Your task to perform on an android device: Open eBay Image 0: 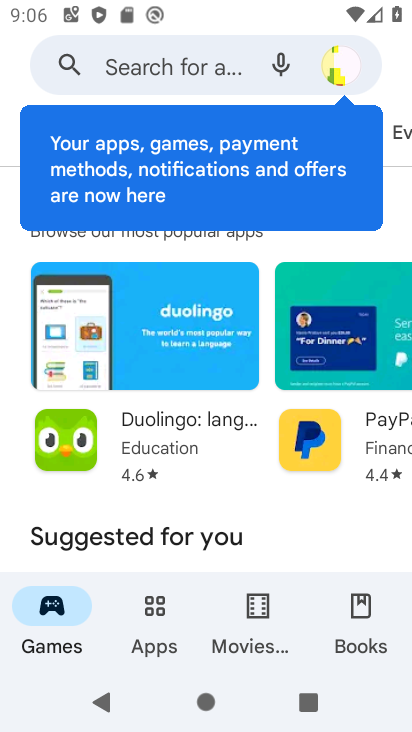
Step 0: press home button
Your task to perform on an android device: Open eBay Image 1: 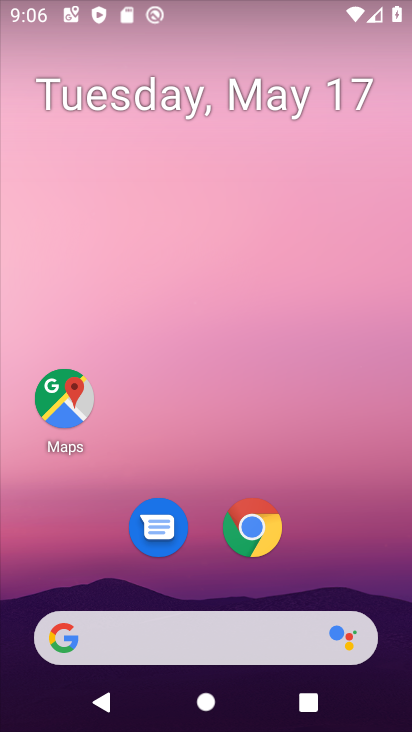
Step 1: click (267, 537)
Your task to perform on an android device: Open eBay Image 2: 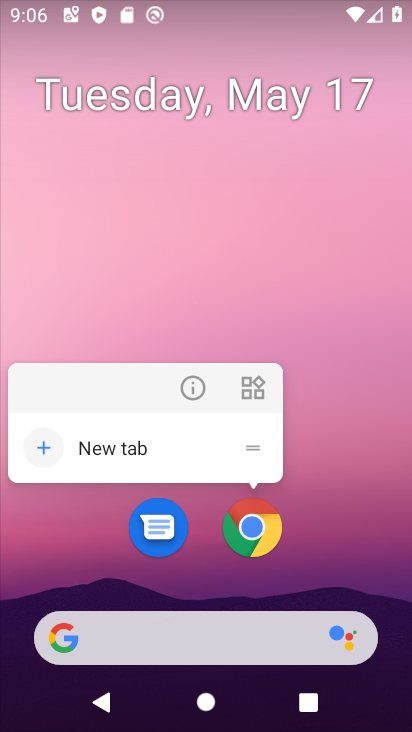
Step 2: click (259, 528)
Your task to perform on an android device: Open eBay Image 3: 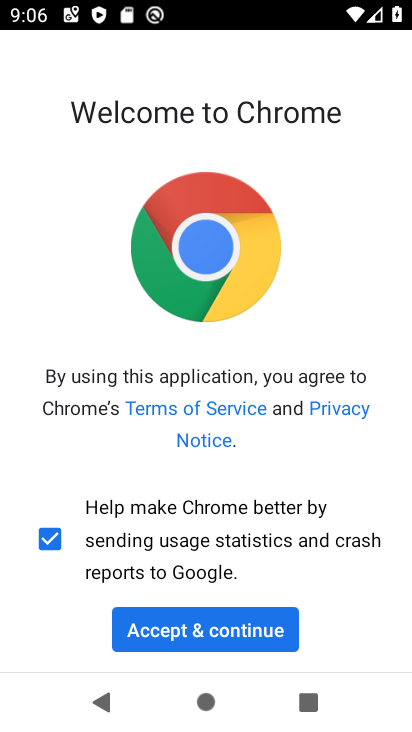
Step 3: click (194, 627)
Your task to perform on an android device: Open eBay Image 4: 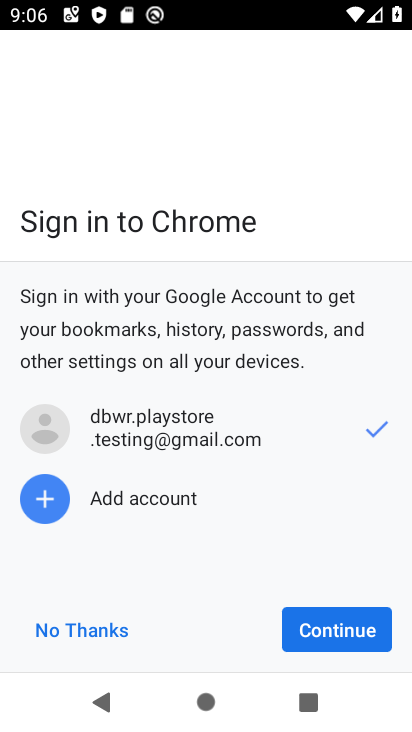
Step 4: click (313, 628)
Your task to perform on an android device: Open eBay Image 5: 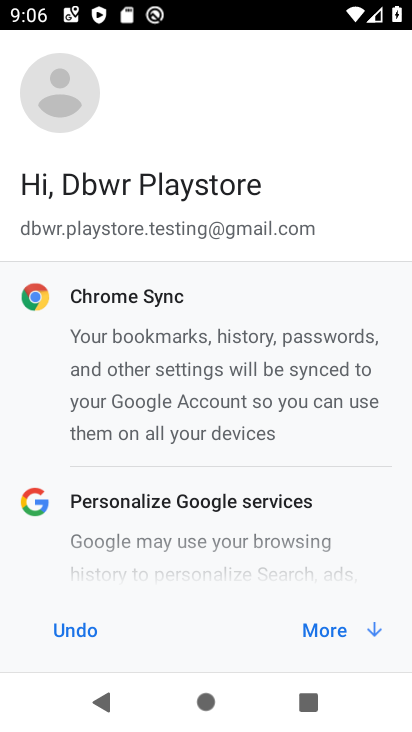
Step 5: click (333, 640)
Your task to perform on an android device: Open eBay Image 6: 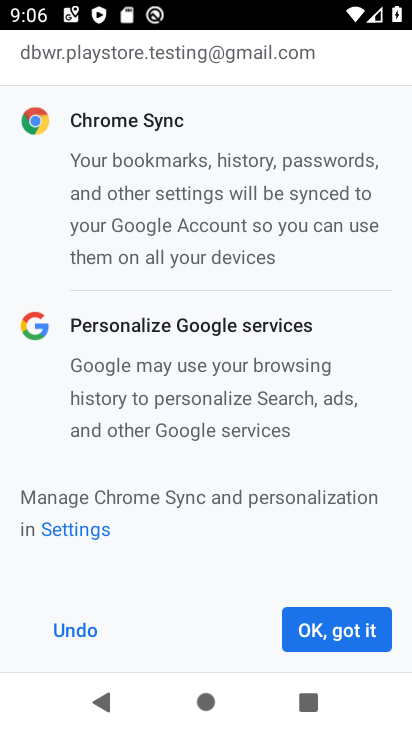
Step 6: click (333, 640)
Your task to perform on an android device: Open eBay Image 7: 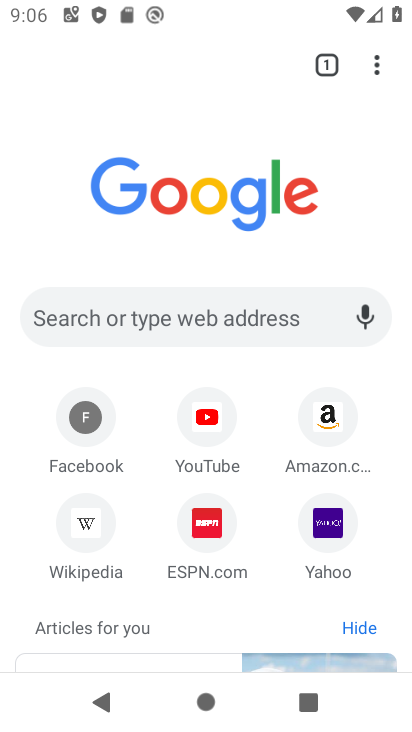
Step 7: click (128, 314)
Your task to perform on an android device: Open eBay Image 8: 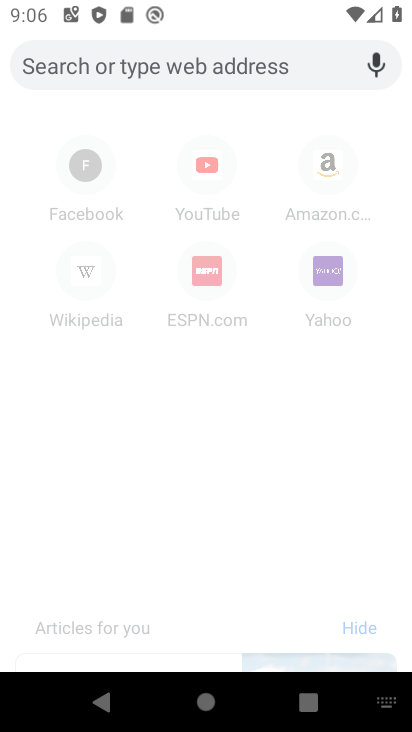
Step 8: type "ebay"
Your task to perform on an android device: Open eBay Image 9: 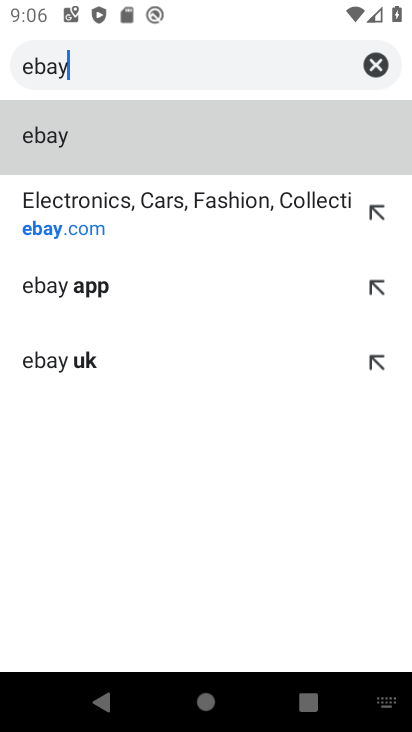
Step 9: click (151, 196)
Your task to perform on an android device: Open eBay Image 10: 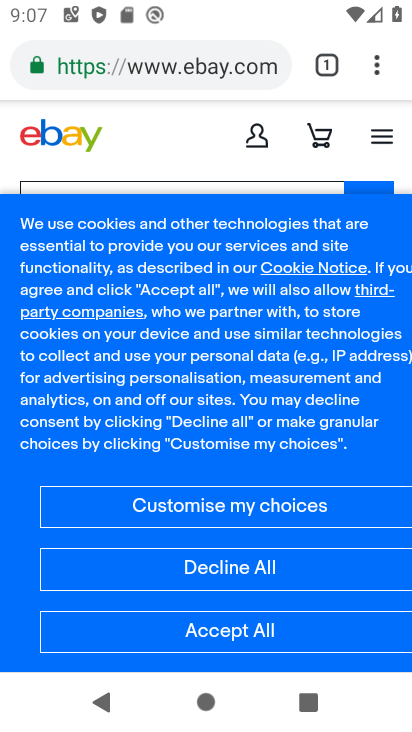
Step 10: task complete